Your task to perform on an android device: Search for pizza restaurants on Maps Image 0: 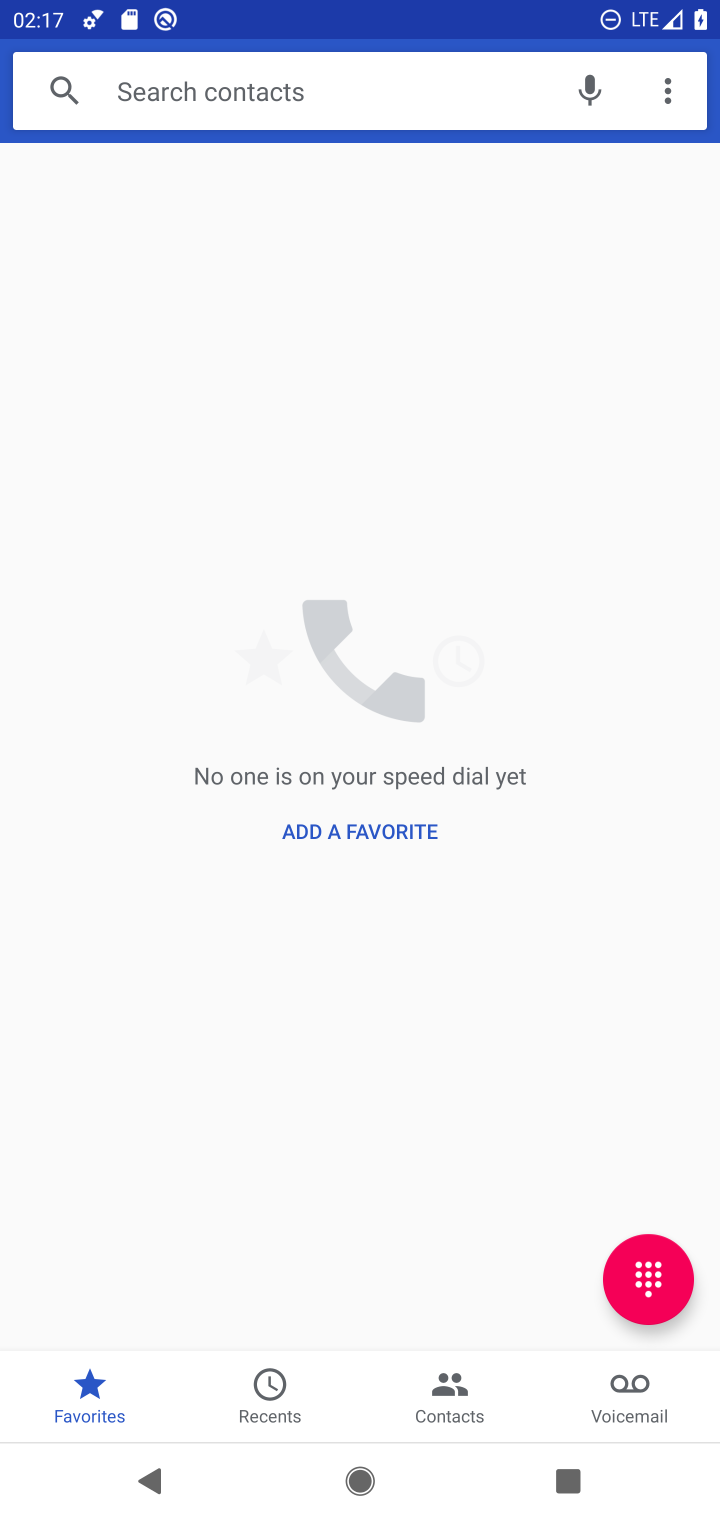
Step 0: press home button
Your task to perform on an android device: Search for pizza restaurants on Maps Image 1: 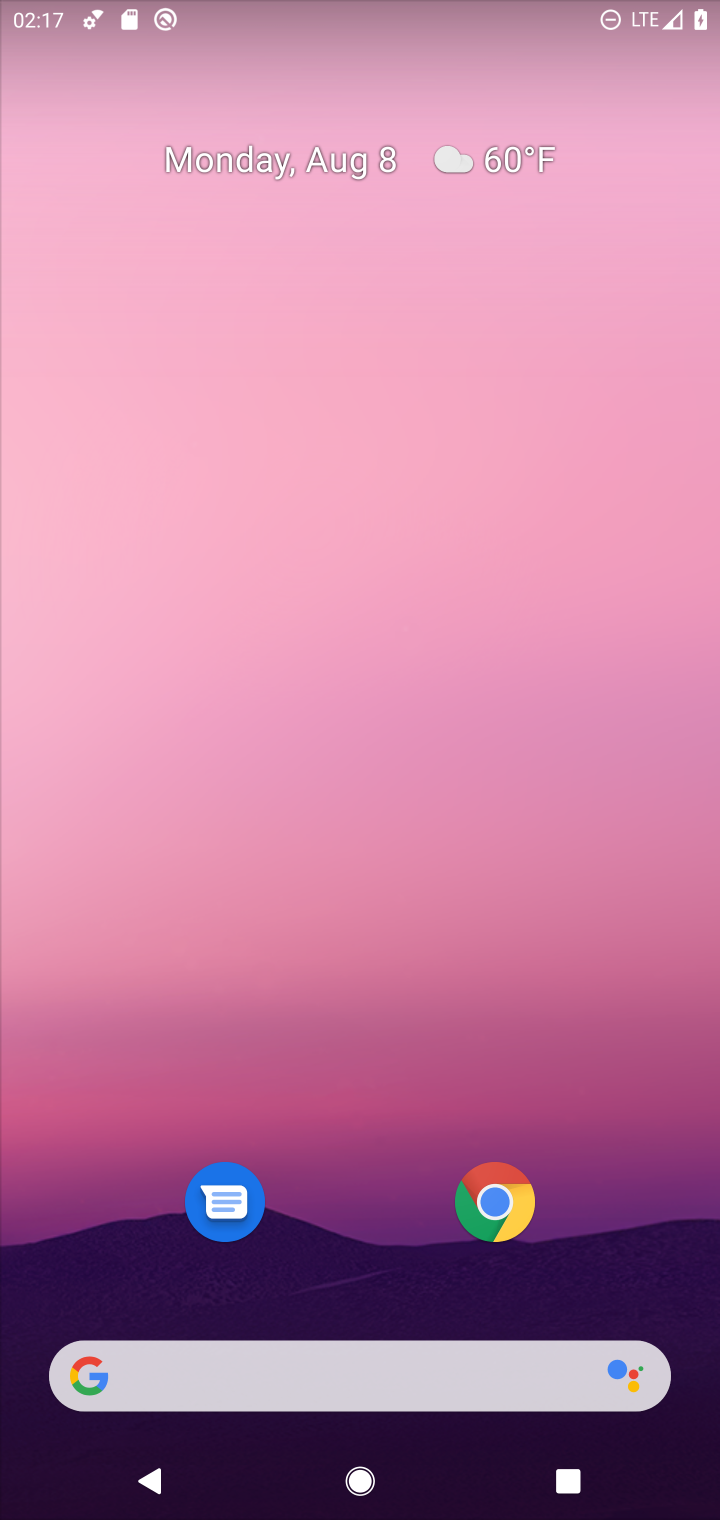
Step 1: drag from (390, 1285) to (369, 106)
Your task to perform on an android device: Search for pizza restaurants on Maps Image 2: 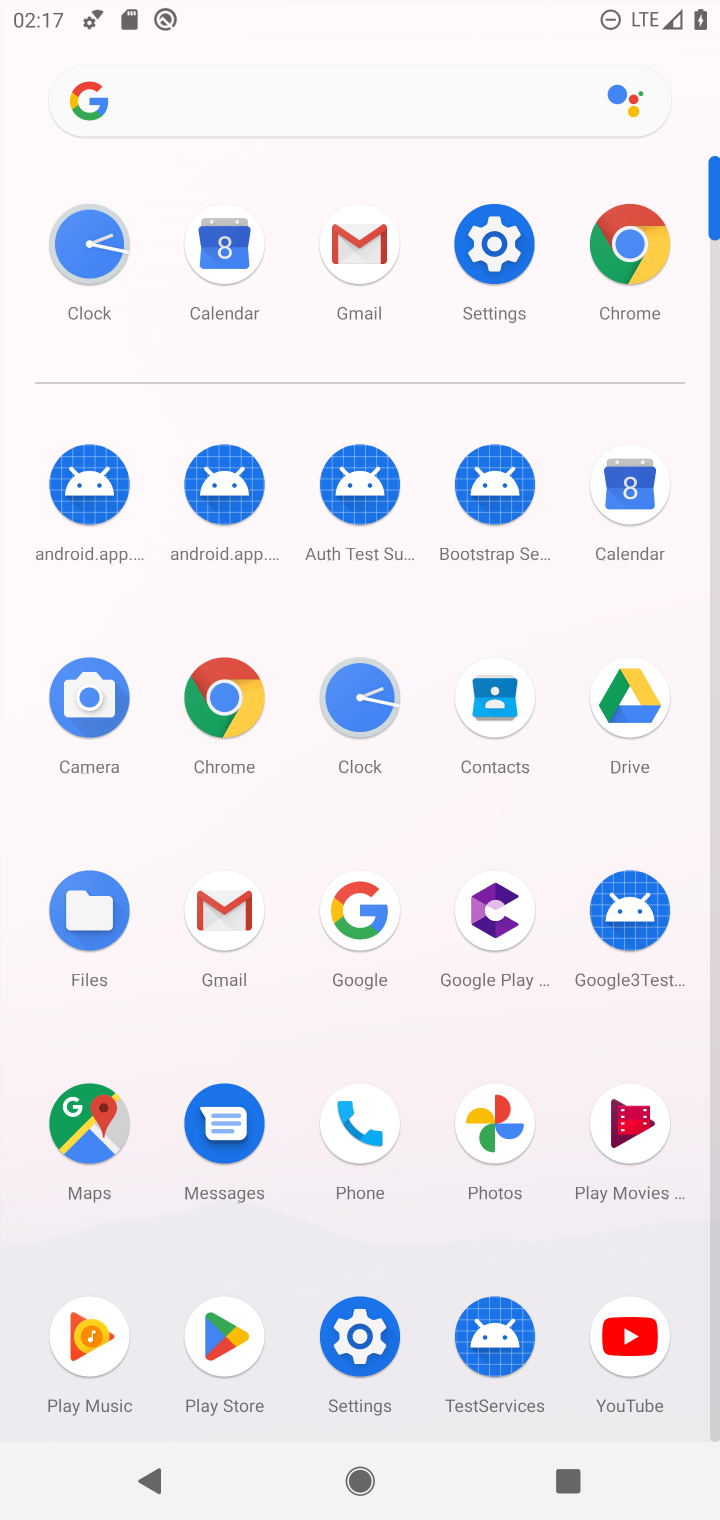
Step 2: click (72, 1123)
Your task to perform on an android device: Search for pizza restaurants on Maps Image 3: 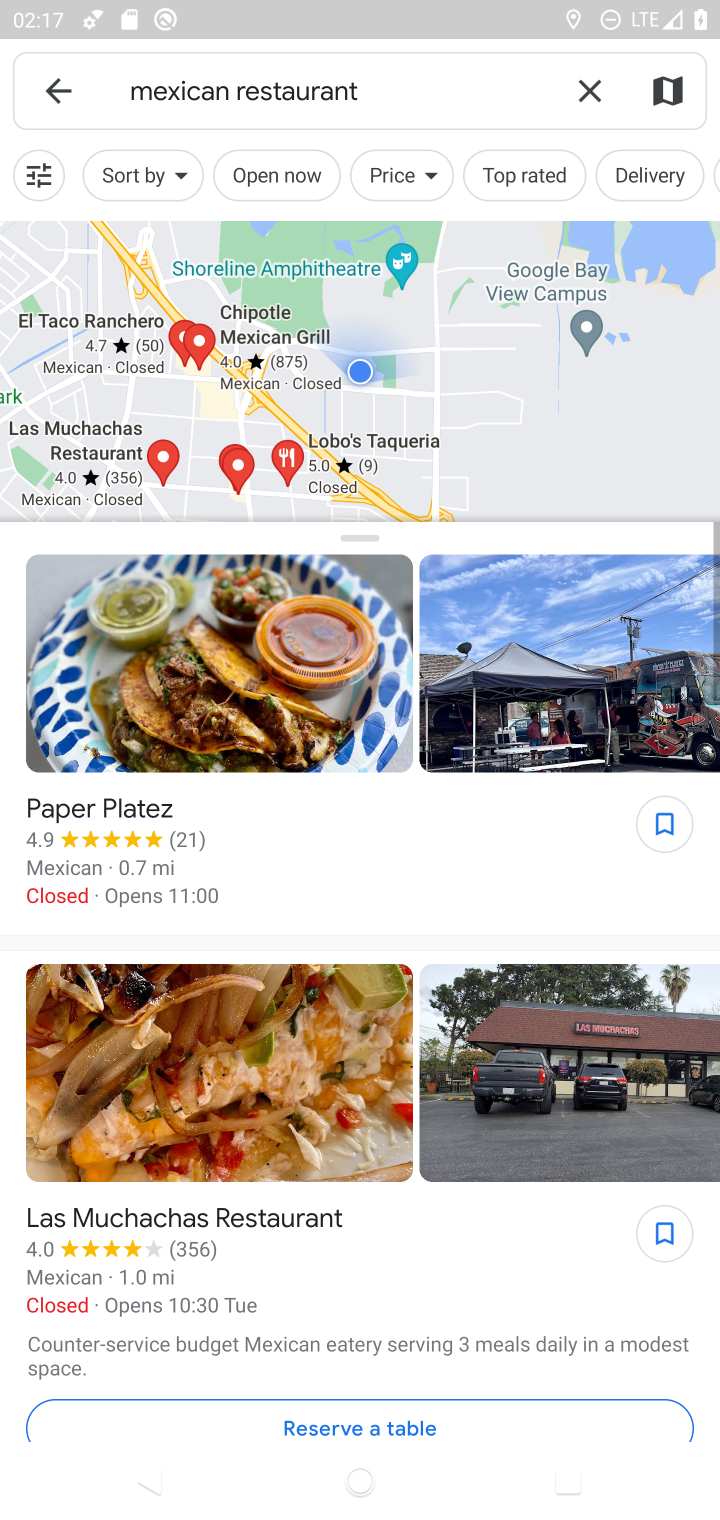
Step 3: click (589, 71)
Your task to perform on an android device: Search for pizza restaurants on Maps Image 4: 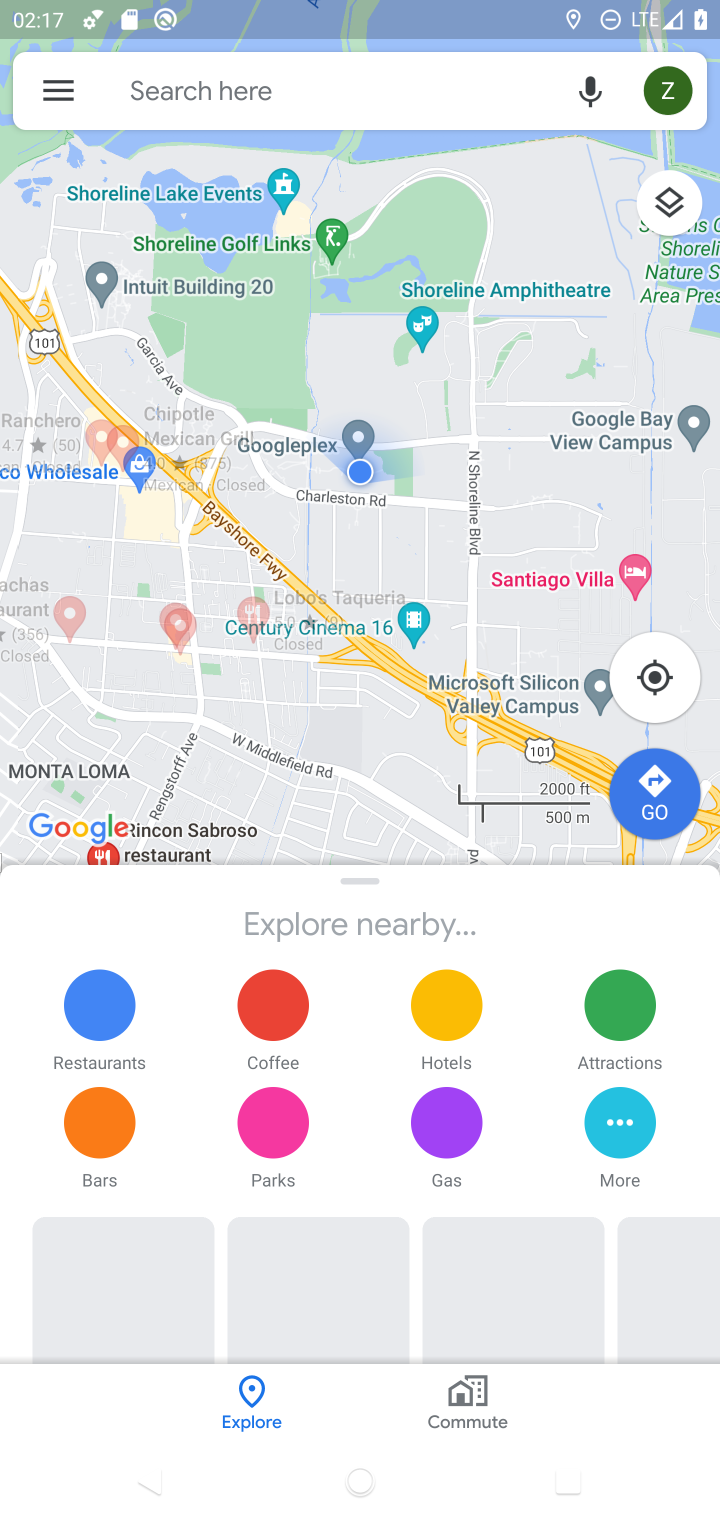
Step 4: click (419, 83)
Your task to perform on an android device: Search for pizza restaurants on Maps Image 5: 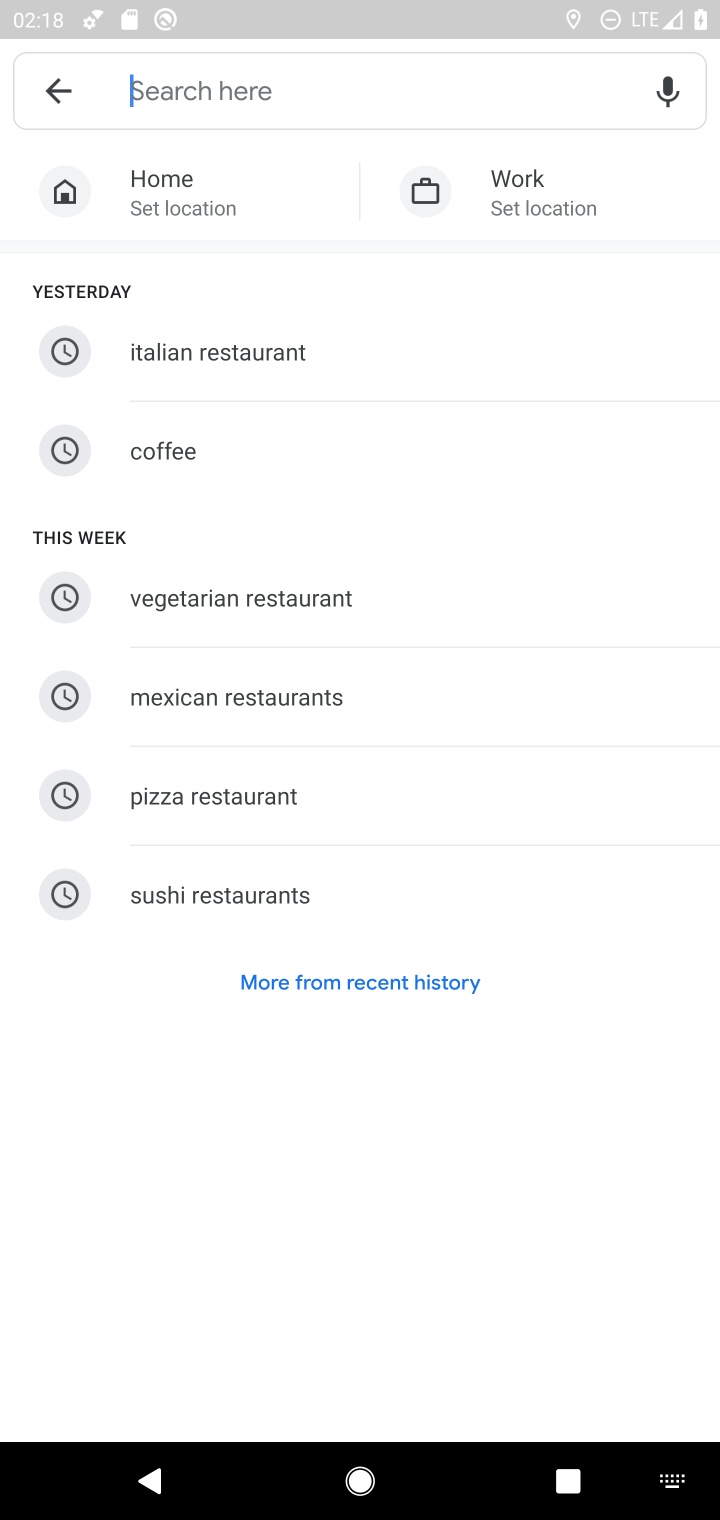
Step 5: type "pizza restaurants"
Your task to perform on an android device: Search for pizza restaurants on Maps Image 6: 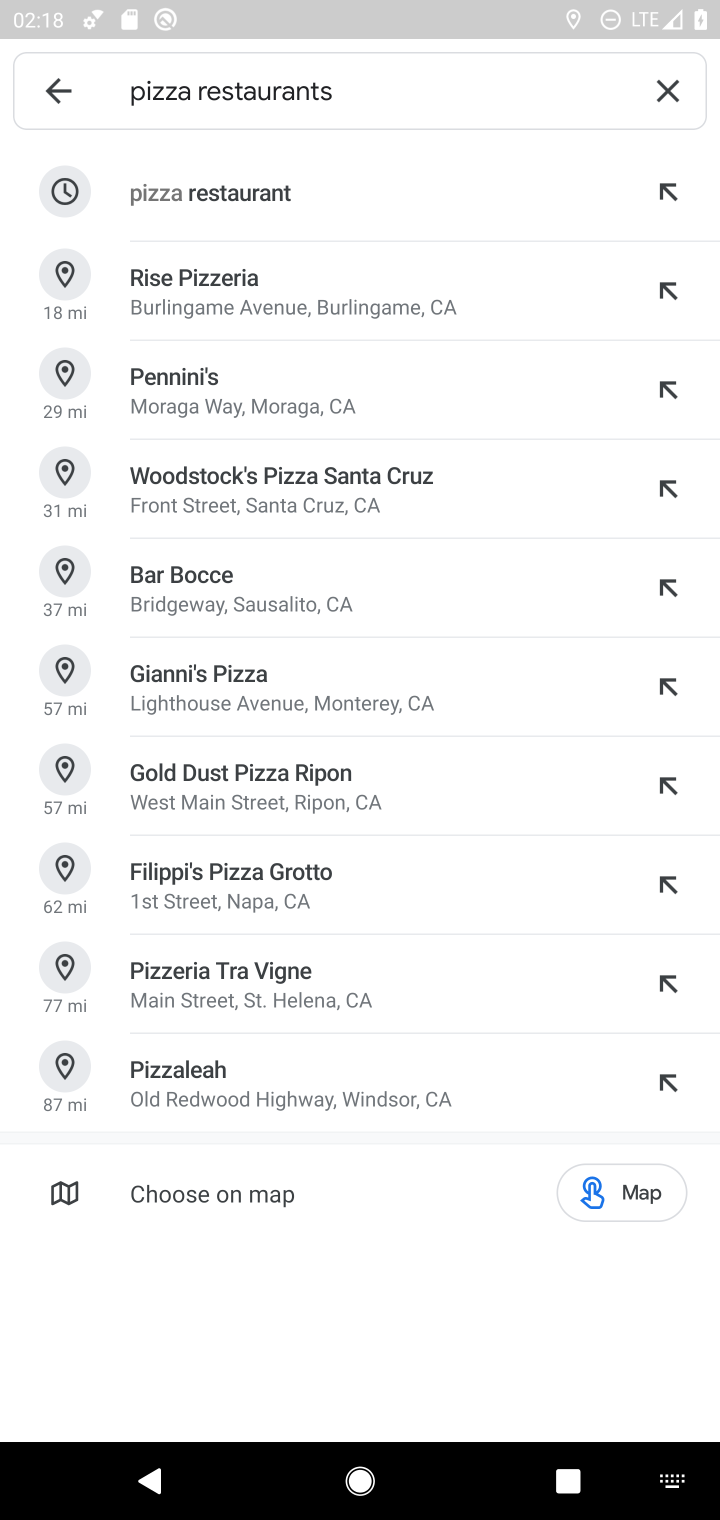
Step 6: click (348, 177)
Your task to perform on an android device: Search for pizza restaurants on Maps Image 7: 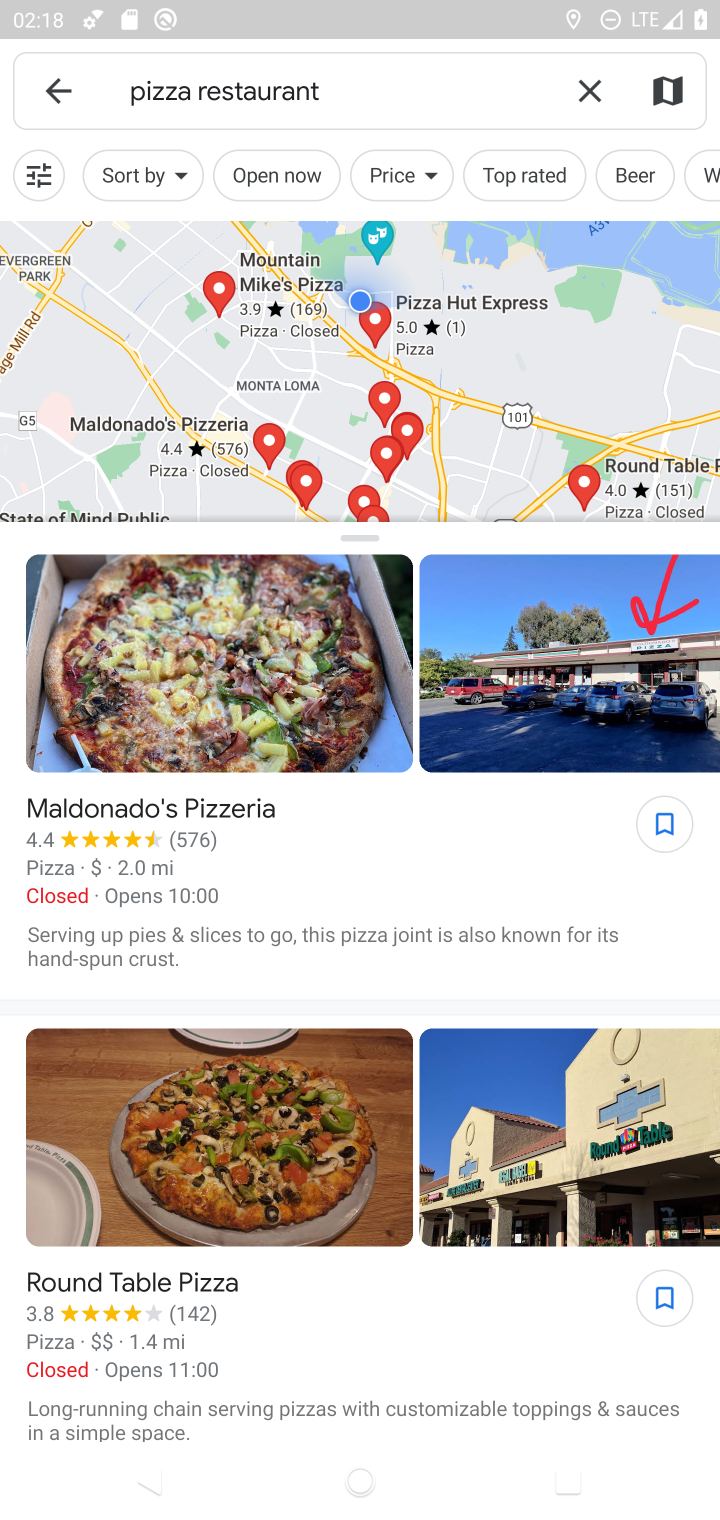
Step 7: task complete